Your task to perform on an android device: install app "Flipkart Online Shopping App" Image 0: 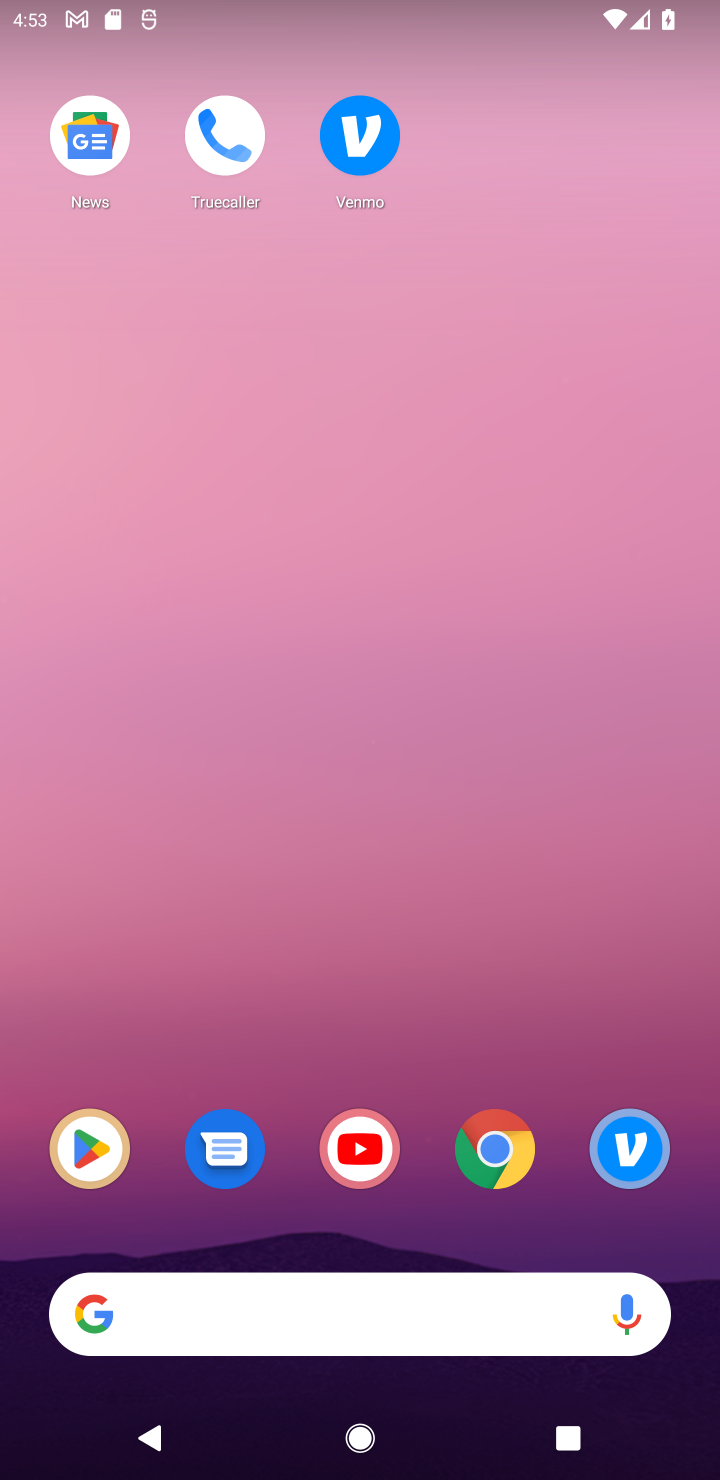
Step 0: click (83, 1139)
Your task to perform on an android device: install app "Flipkart Online Shopping App" Image 1: 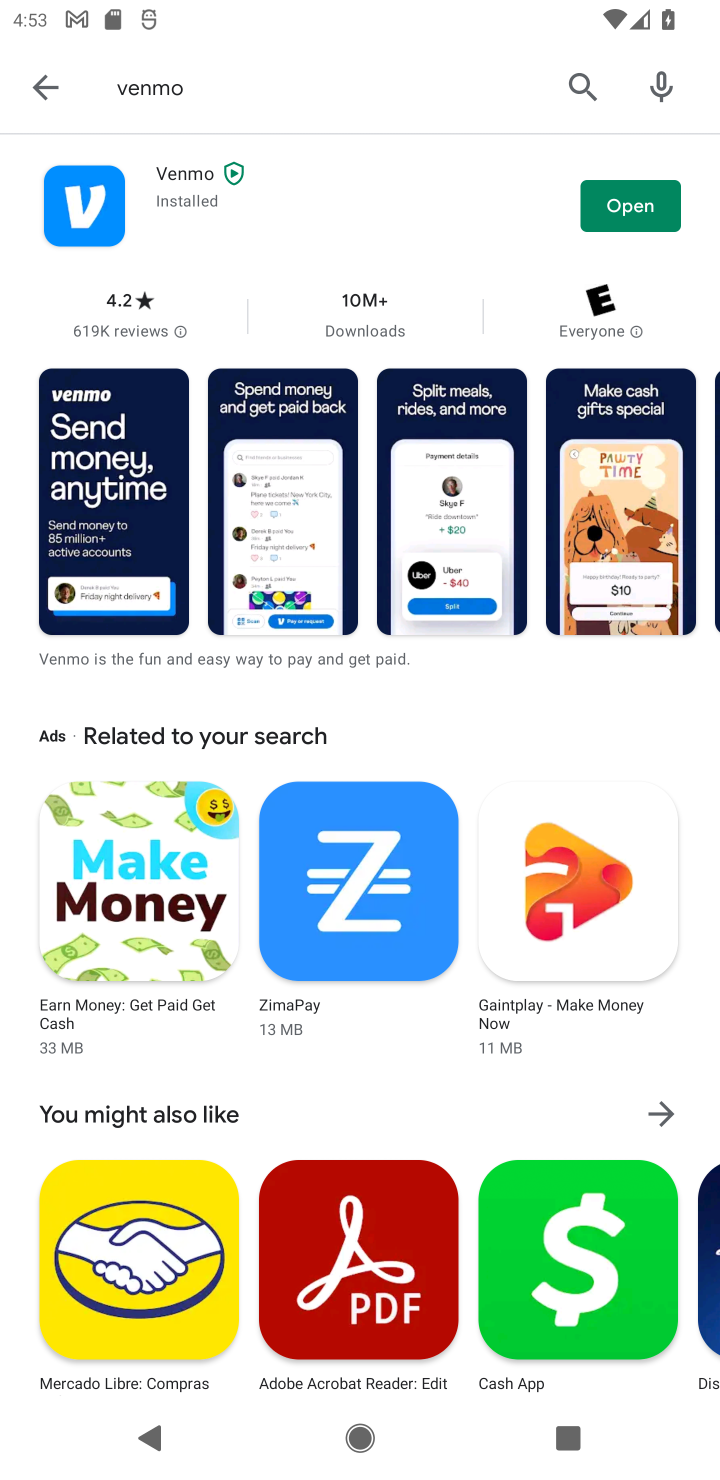
Step 1: click (45, 80)
Your task to perform on an android device: install app "Flipkart Online Shopping App" Image 2: 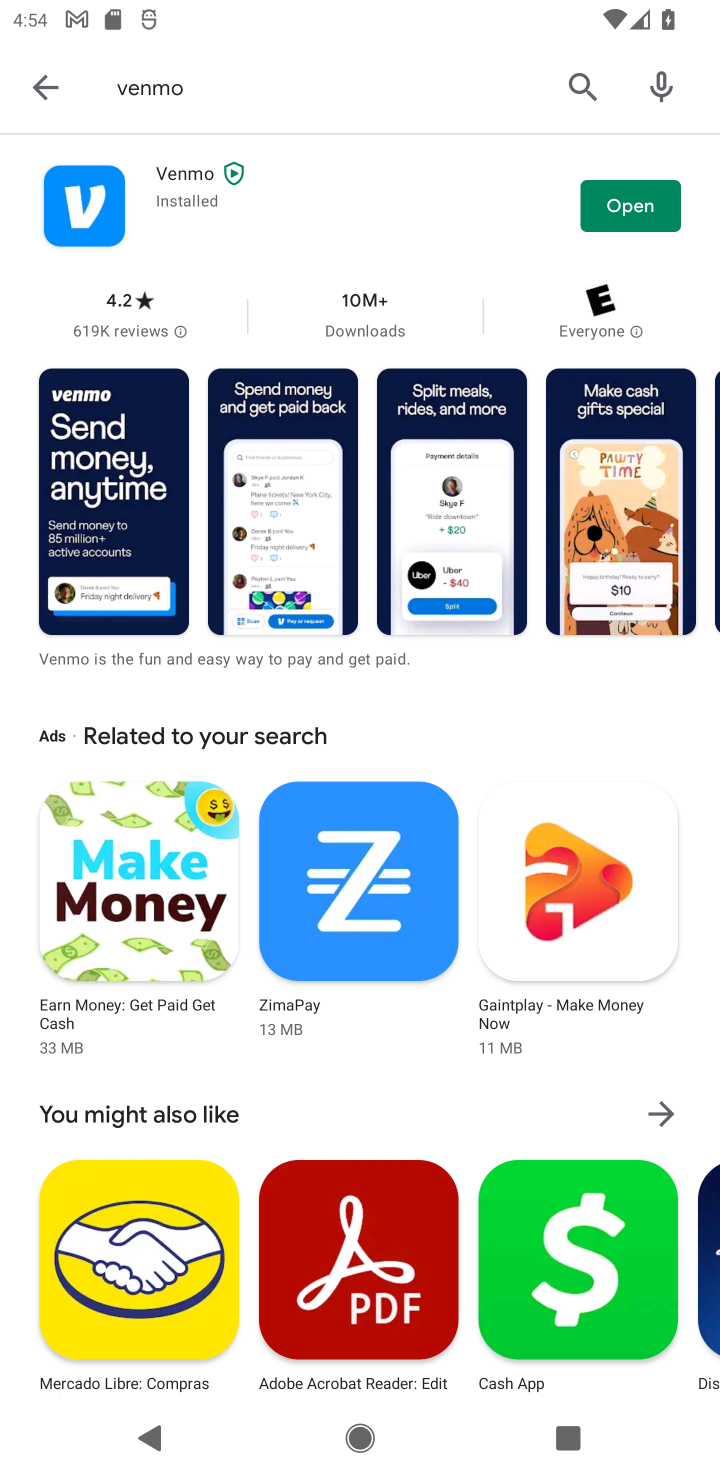
Step 2: click (39, 73)
Your task to perform on an android device: install app "Flipkart Online Shopping App" Image 3: 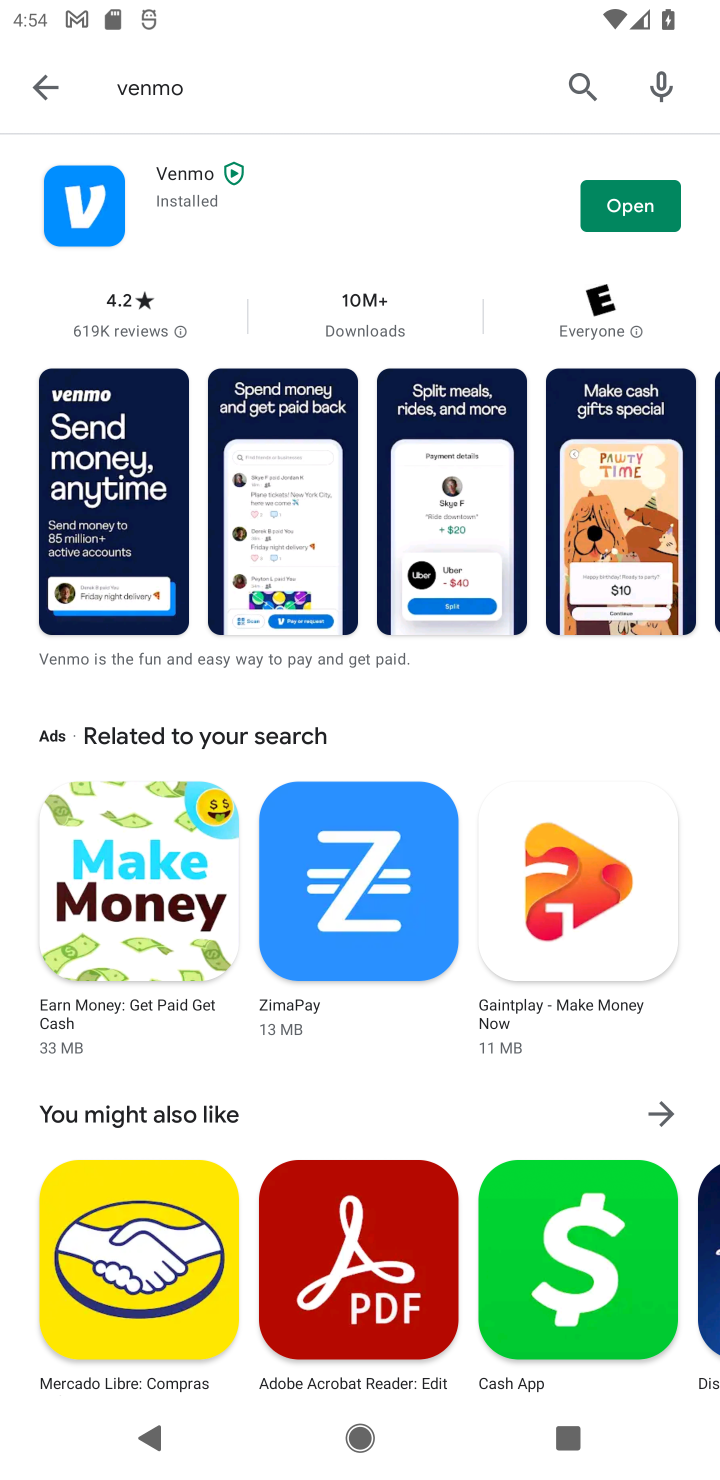
Step 3: press home button
Your task to perform on an android device: install app "Flipkart Online Shopping App" Image 4: 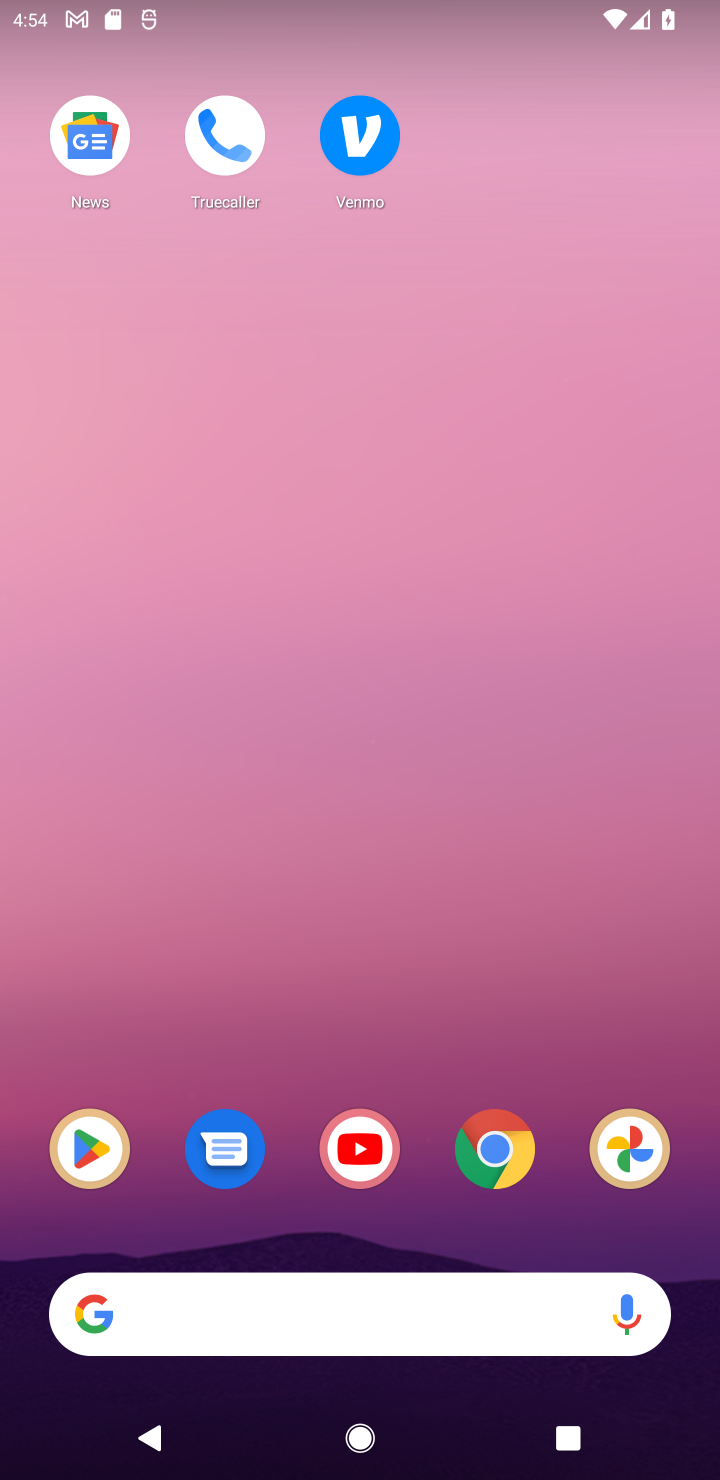
Step 4: click (111, 1144)
Your task to perform on an android device: install app "Flipkart Online Shopping App" Image 5: 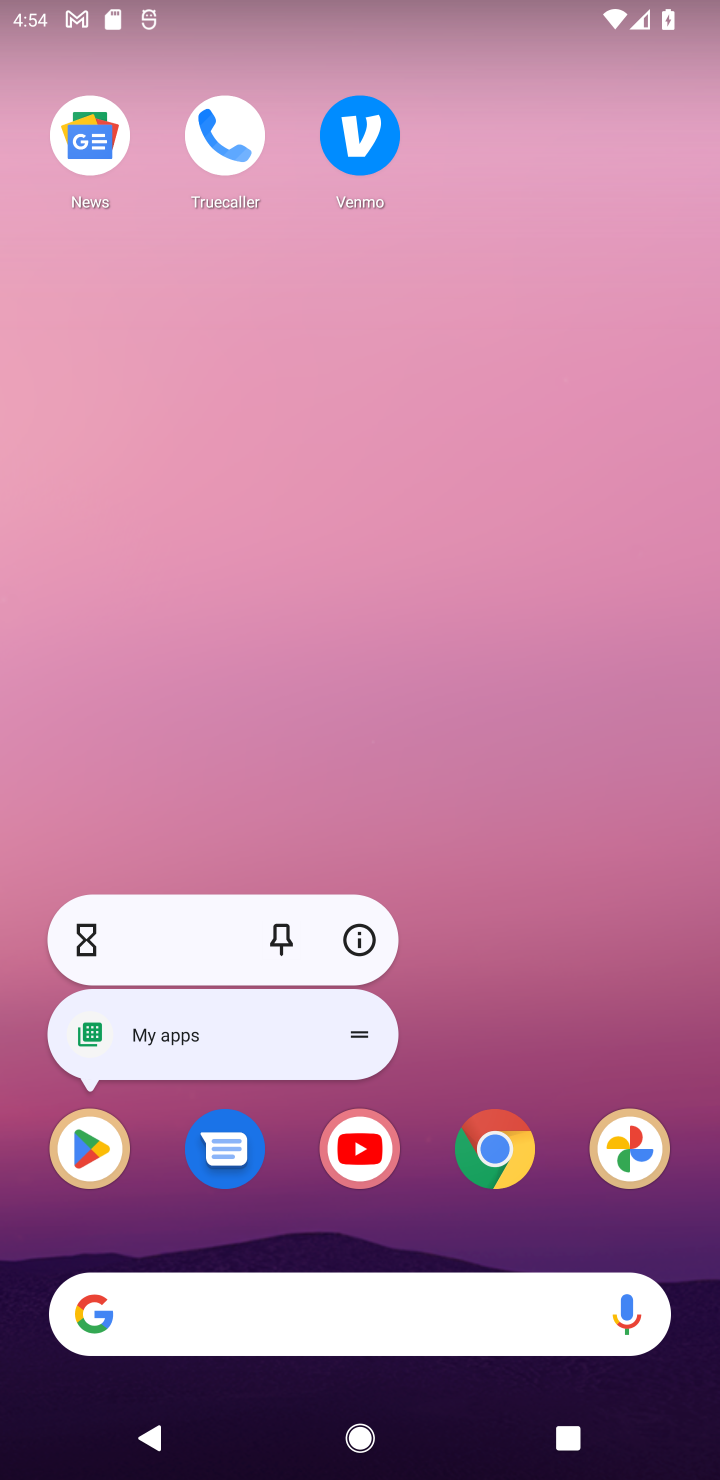
Step 5: click (75, 1164)
Your task to perform on an android device: install app "Flipkart Online Shopping App" Image 6: 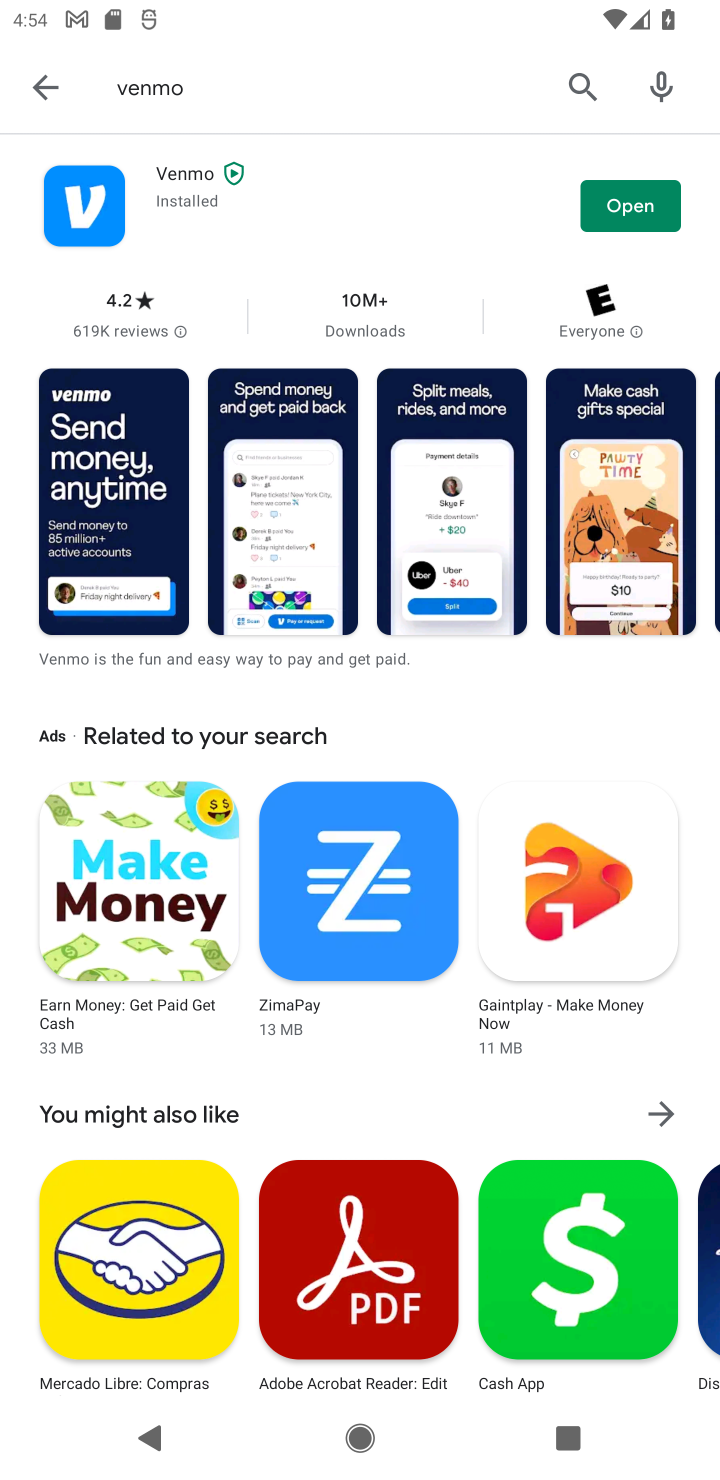
Step 6: click (49, 96)
Your task to perform on an android device: install app "Flipkart Online Shopping App" Image 7: 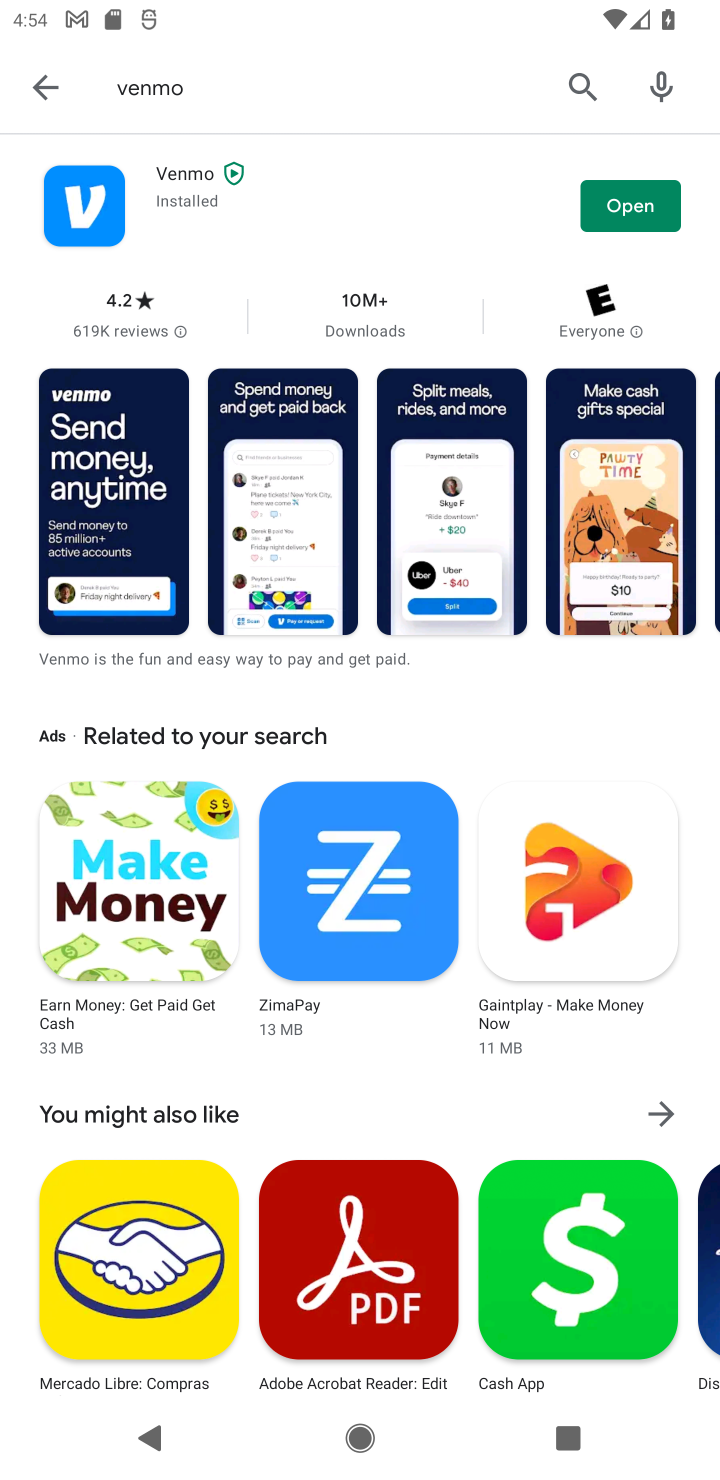
Step 7: click (35, 71)
Your task to perform on an android device: install app "Flipkart Online Shopping App" Image 8: 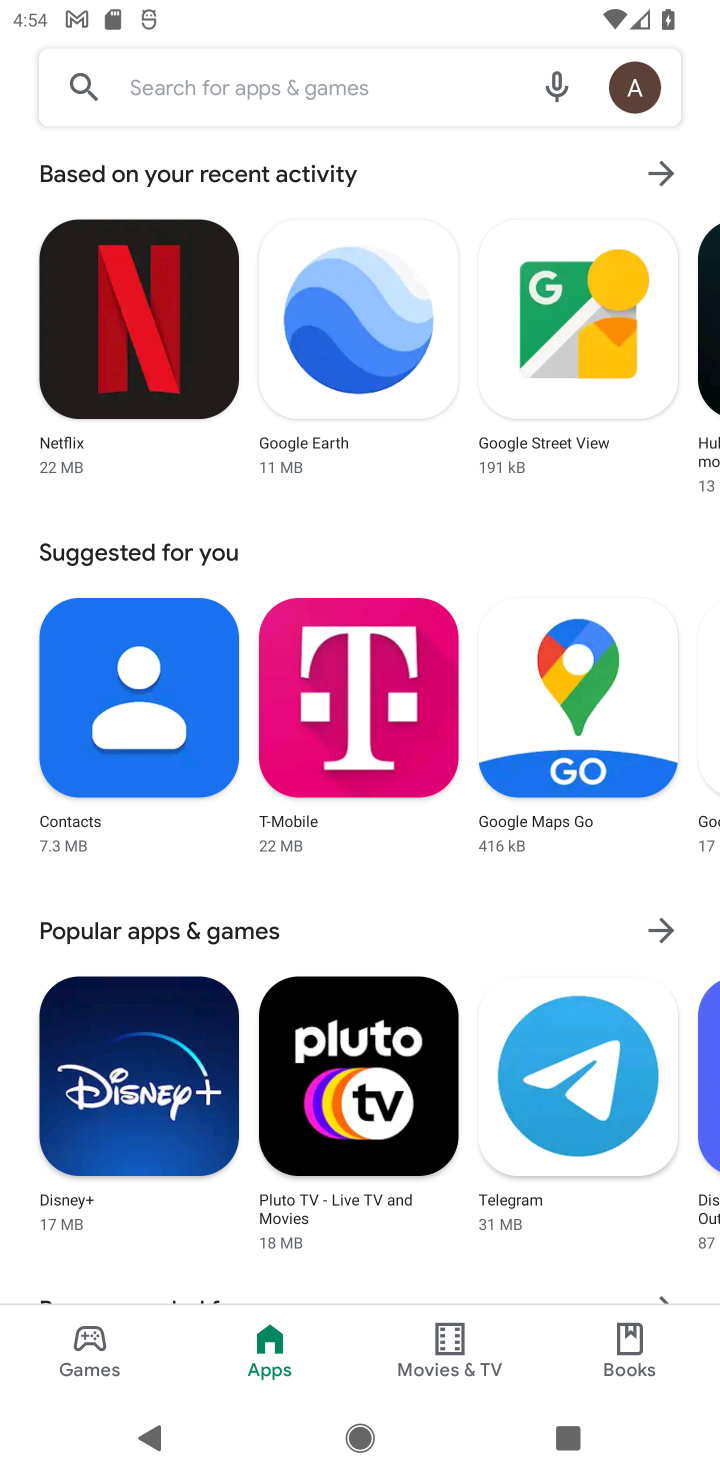
Step 8: click (176, 73)
Your task to perform on an android device: install app "Flipkart Online Shopping App" Image 9: 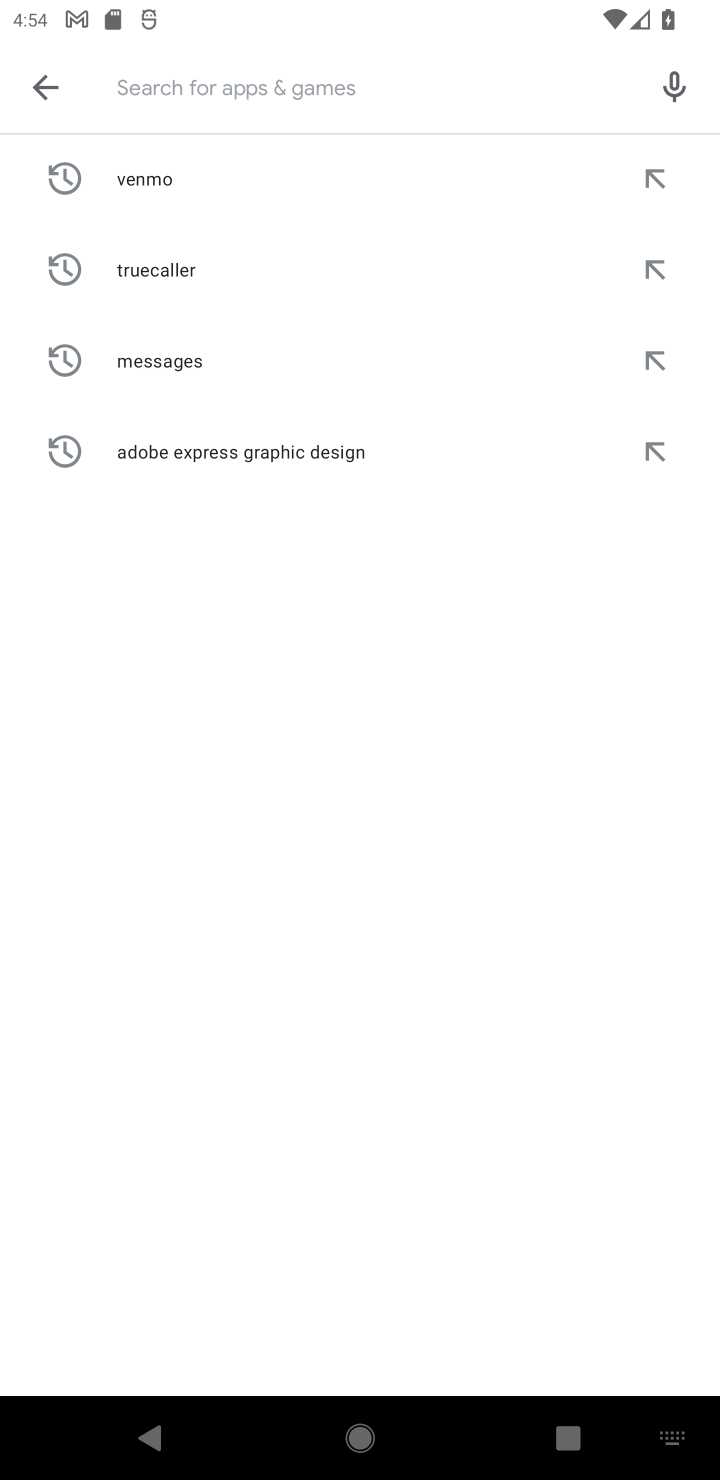
Step 9: type "Flipkart Online Shopping App"
Your task to perform on an android device: install app "Flipkart Online Shopping App" Image 10: 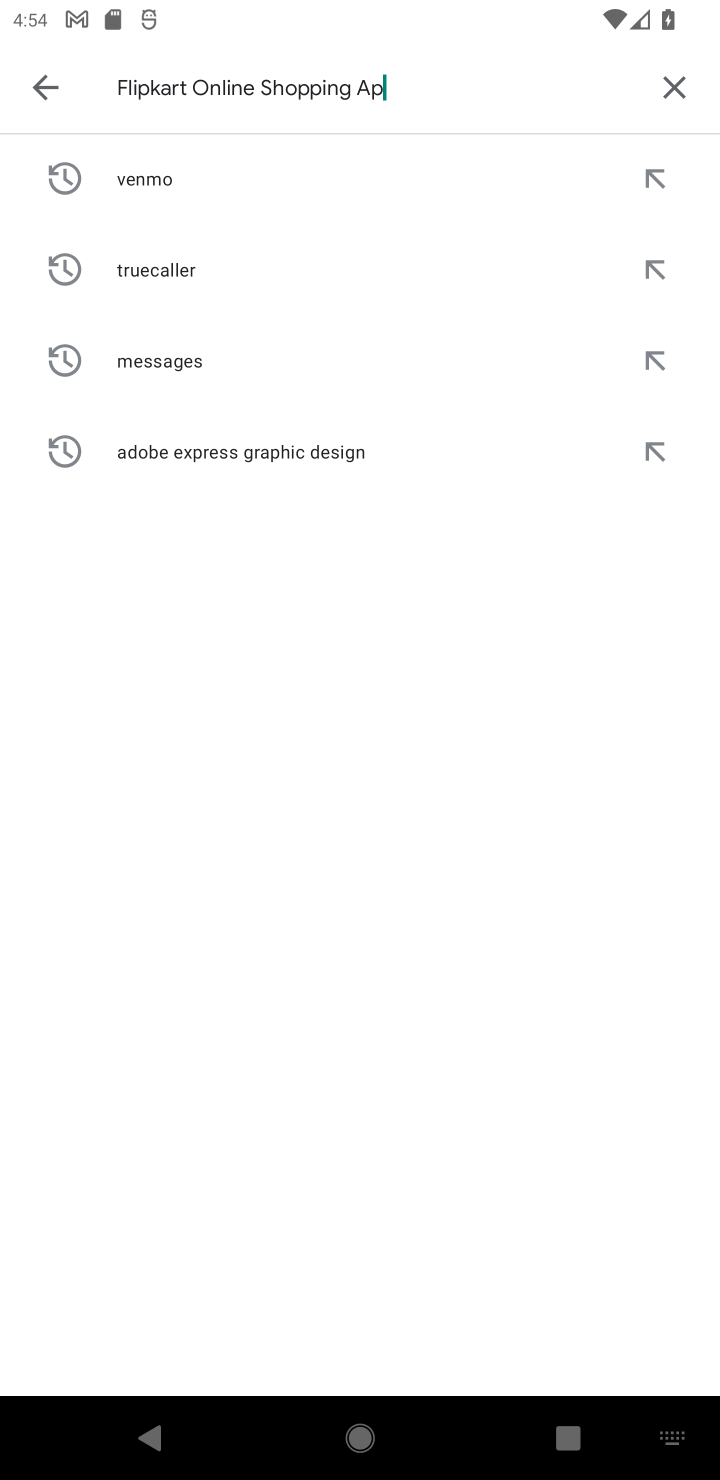
Step 10: type ""
Your task to perform on an android device: install app "Flipkart Online Shopping App" Image 11: 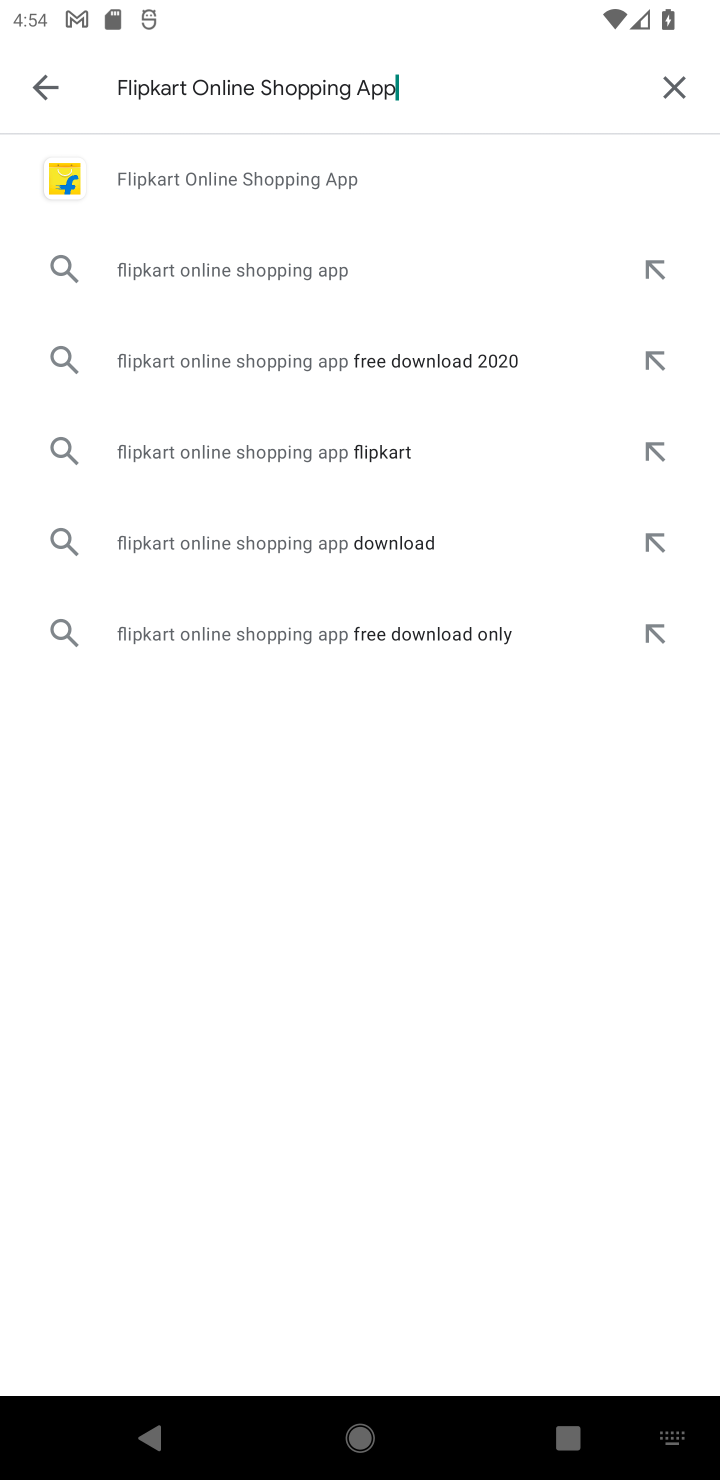
Step 11: click (308, 197)
Your task to perform on an android device: install app "Flipkart Online Shopping App" Image 12: 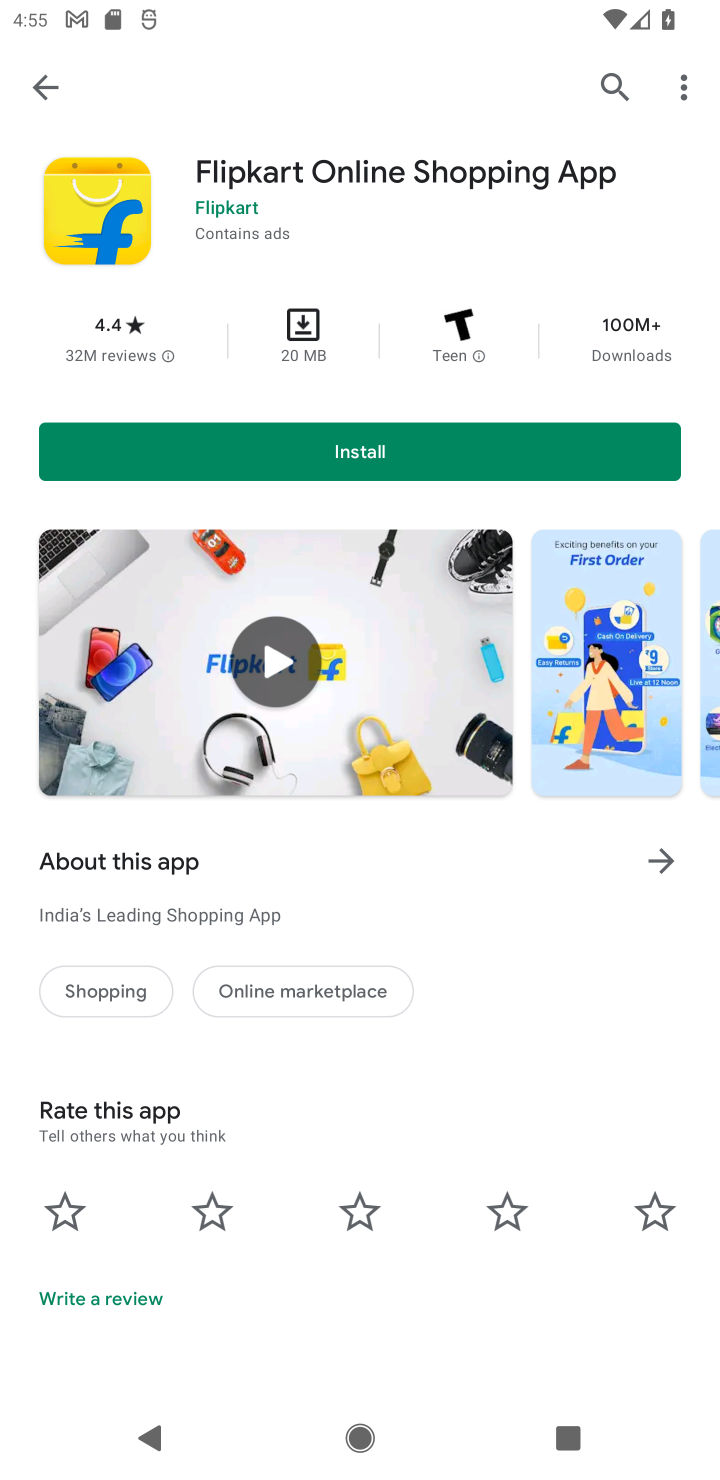
Step 12: click (271, 442)
Your task to perform on an android device: install app "Flipkart Online Shopping App" Image 13: 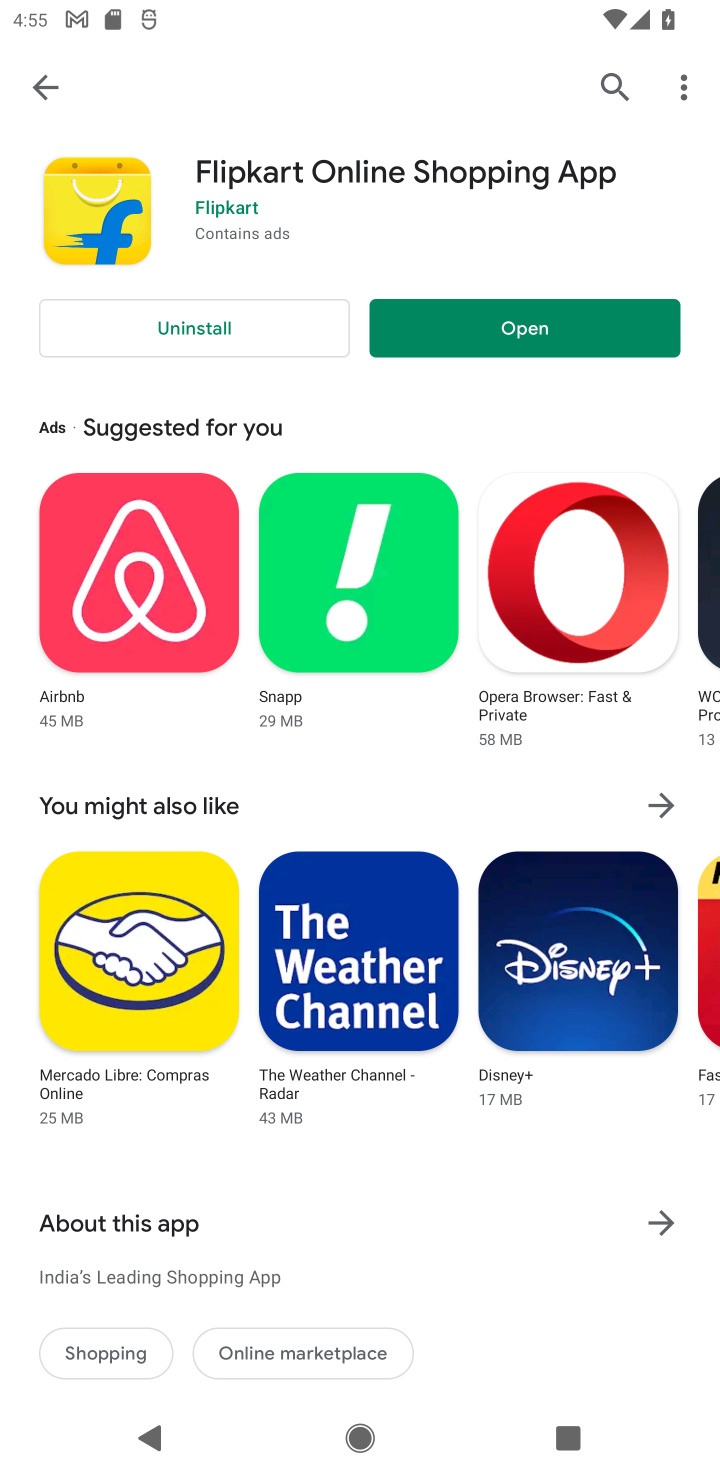
Step 13: task complete